Your task to perform on an android device: check data usage Image 0: 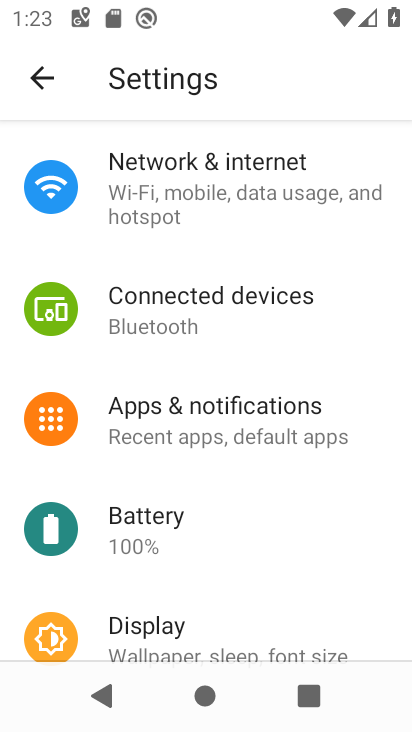
Step 0: press home button
Your task to perform on an android device: check data usage Image 1: 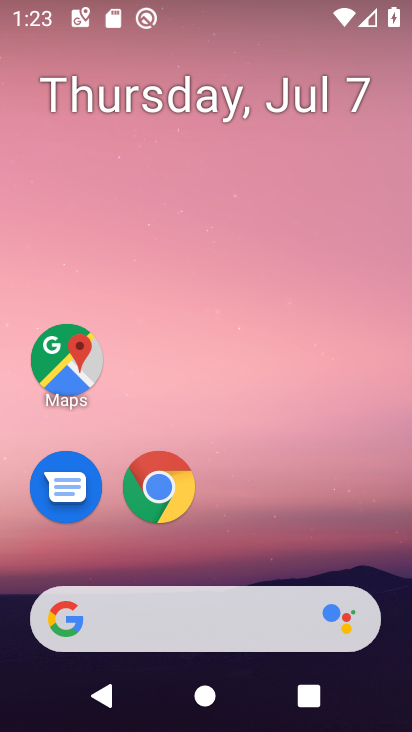
Step 1: drag from (372, 523) to (364, 163)
Your task to perform on an android device: check data usage Image 2: 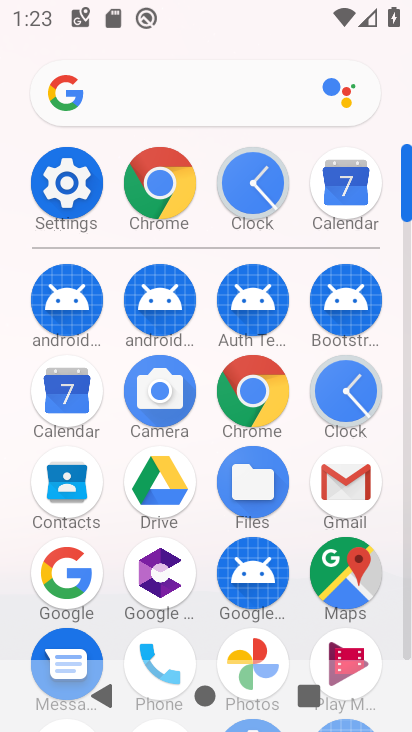
Step 2: click (77, 206)
Your task to perform on an android device: check data usage Image 3: 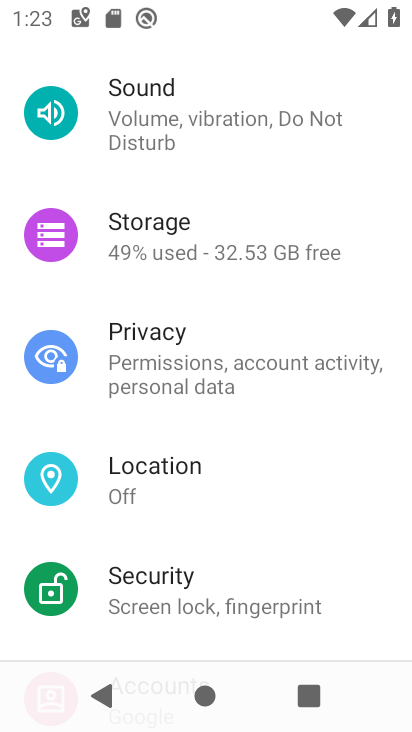
Step 3: drag from (364, 183) to (367, 320)
Your task to perform on an android device: check data usage Image 4: 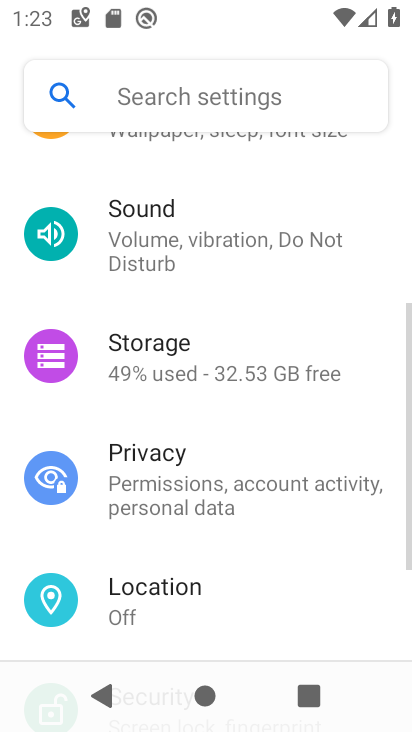
Step 4: drag from (366, 187) to (369, 352)
Your task to perform on an android device: check data usage Image 5: 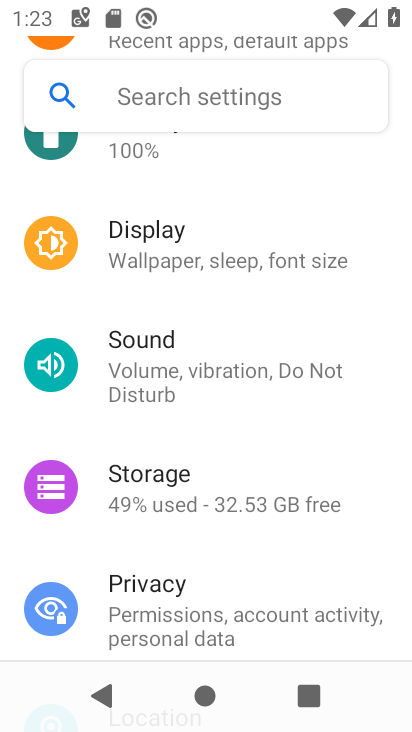
Step 5: drag from (358, 206) to (358, 309)
Your task to perform on an android device: check data usage Image 6: 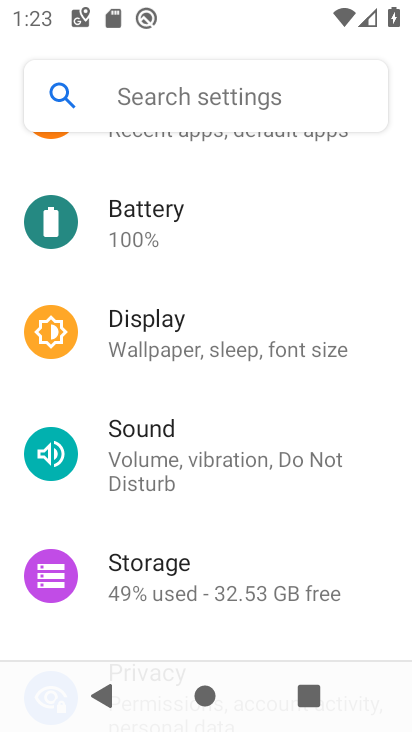
Step 6: drag from (350, 196) to (351, 329)
Your task to perform on an android device: check data usage Image 7: 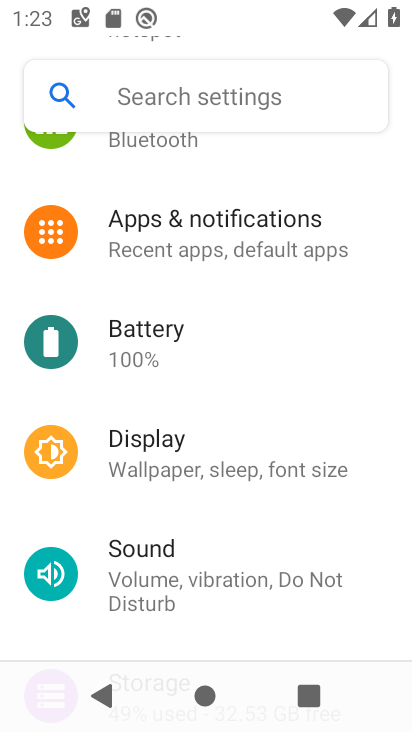
Step 7: drag from (359, 208) to (368, 361)
Your task to perform on an android device: check data usage Image 8: 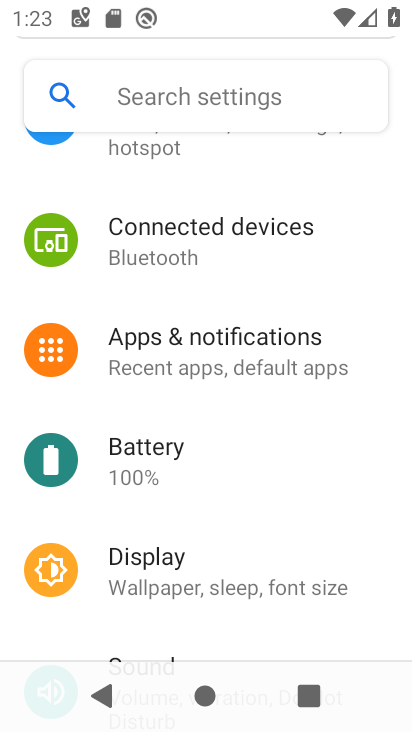
Step 8: drag from (369, 218) to (375, 378)
Your task to perform on an android device: check data usage Image 9: 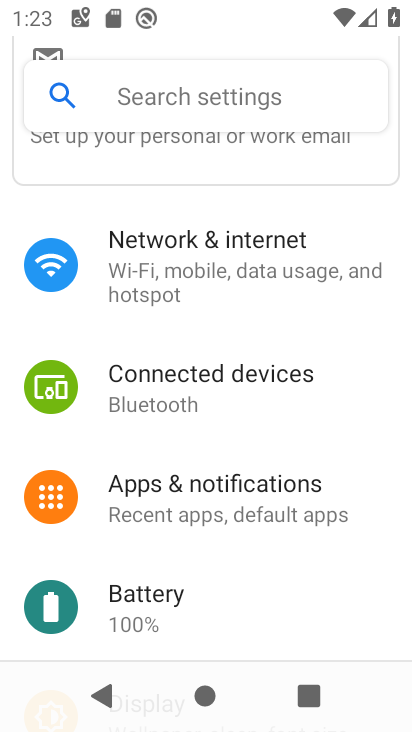
Step 9: drag from (367, 220) to (375, 376)
Your task to perform on an android device: check data usage Image 10: 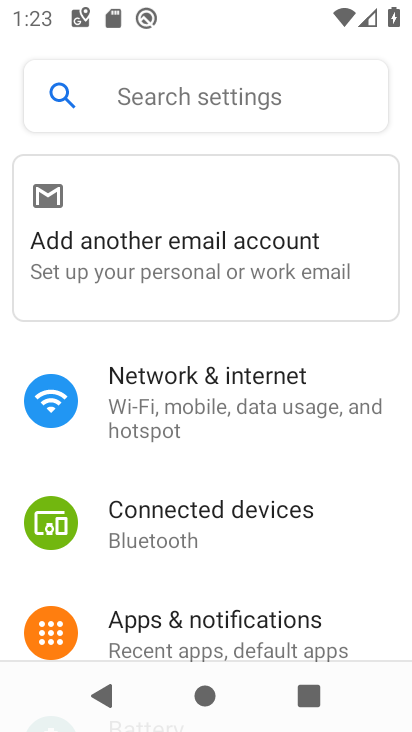
Step 10: click (272, 403)
Your task to perform on an android device: check data usage Image 11: 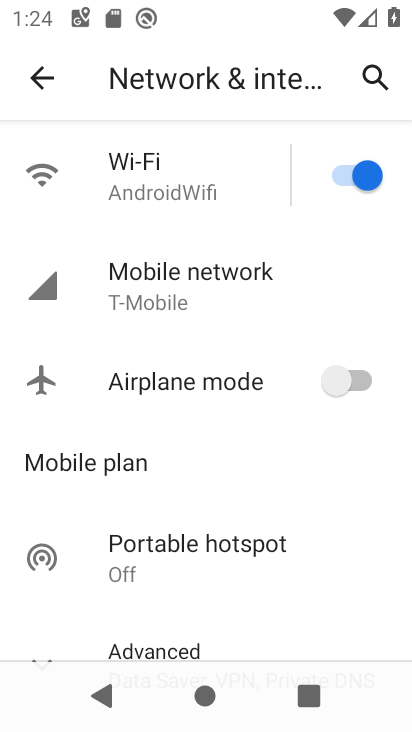
Step 11: click (246, 306)
Your task to perform on an android device: check data usage Image 12: 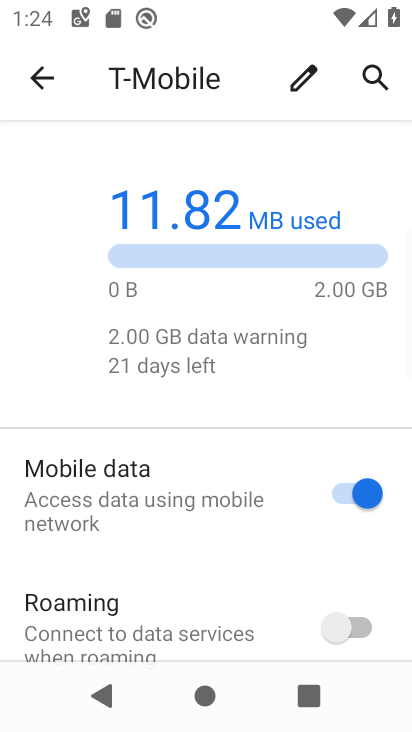
Step 12: drag from (290, 476) to (285, 340)
Your task to perform on an android device: check data usage Image 13: 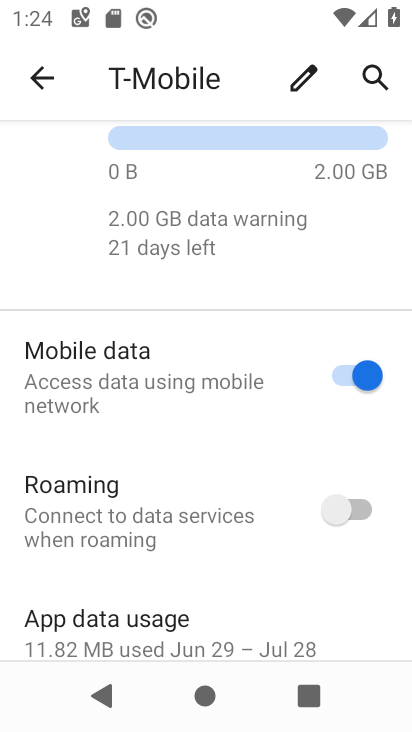
Step 13: drag from (282, 556) to (276, 387)
Your task to perform on an android device: check data usage Image 14: 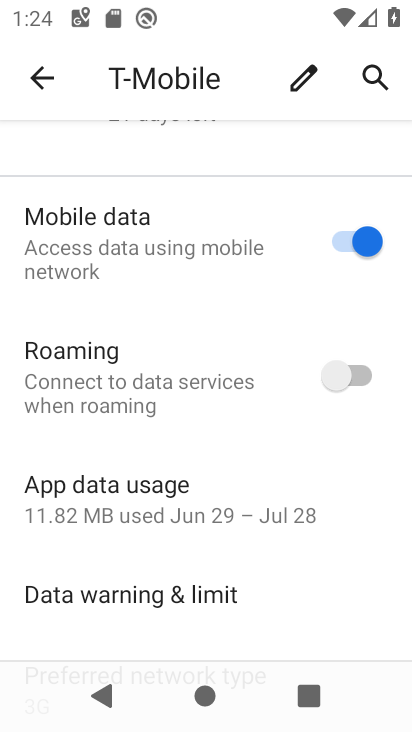
Step 14: click (224, 499)
Your task to perform on an android device: check data usage Image 15: 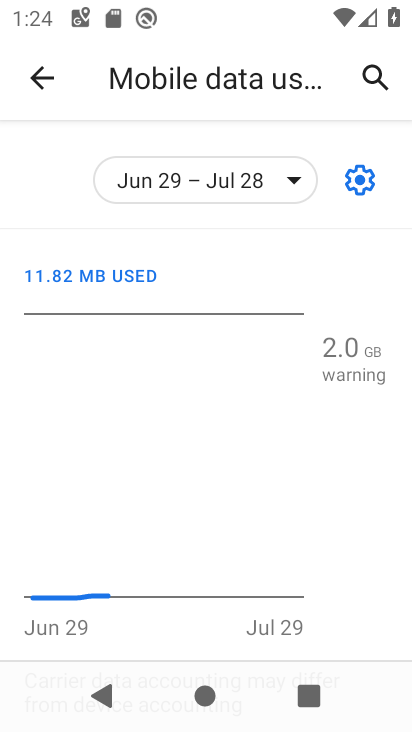
Step 15: task complete